Your task to perform on an android device: Open Android settings Image 0: 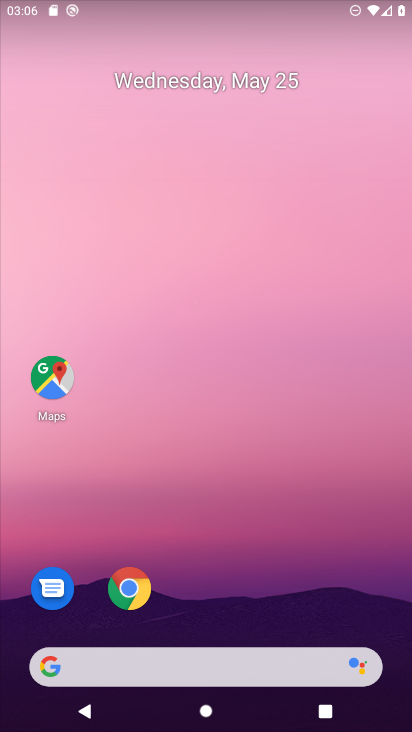
Step 0: drag from (318, 600) to (325, 41)
Your task to perform on an android device: Open Android settings Image 1: 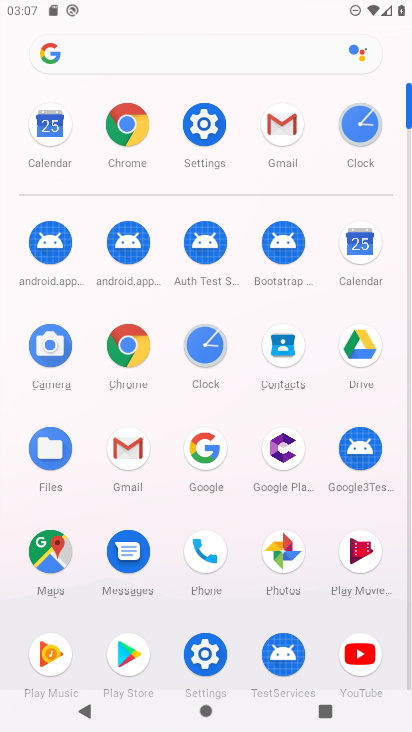
Step 1: click (198, 649)
Your task to perform on an android device: Open Android settings Image 2: 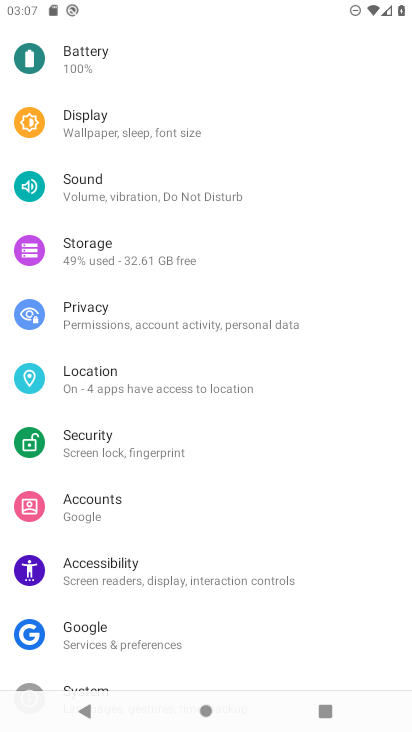
Step 2: drag from (209, 481) to (243, 238)
Your task to perform on an android device: Open Android settings Image 3: 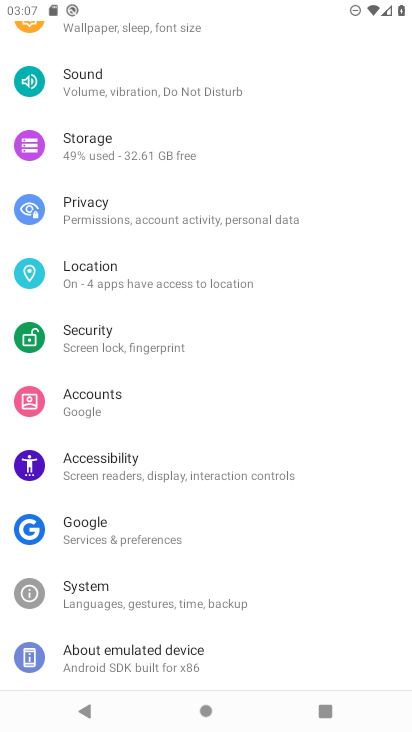
Step 3: click (133, 651)
Your task to perform on an android device: Open Android settings Image 4: 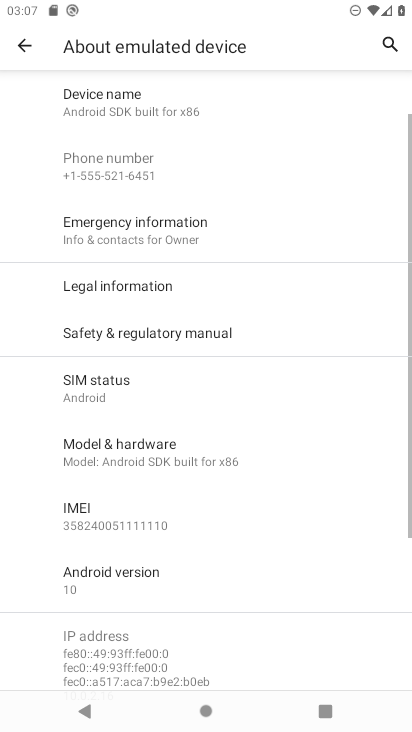
Step 4: click (85, 576)
Your task to perform on an android device: Open Android settings Image 5: 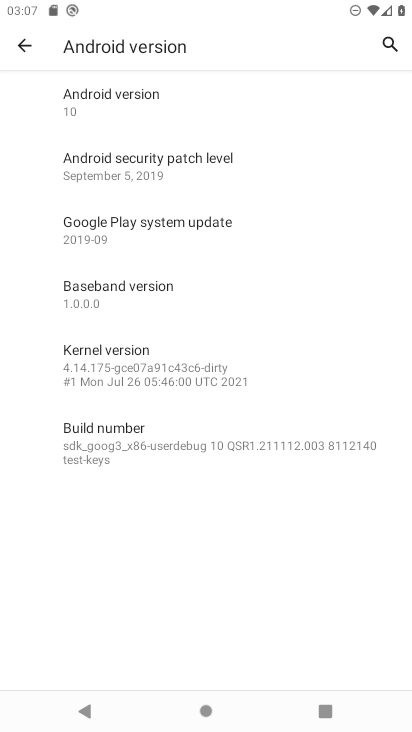
Step 5: task complete